Your task to perform on an android device: Open calendar and show me the fourth week of next month Image 0: 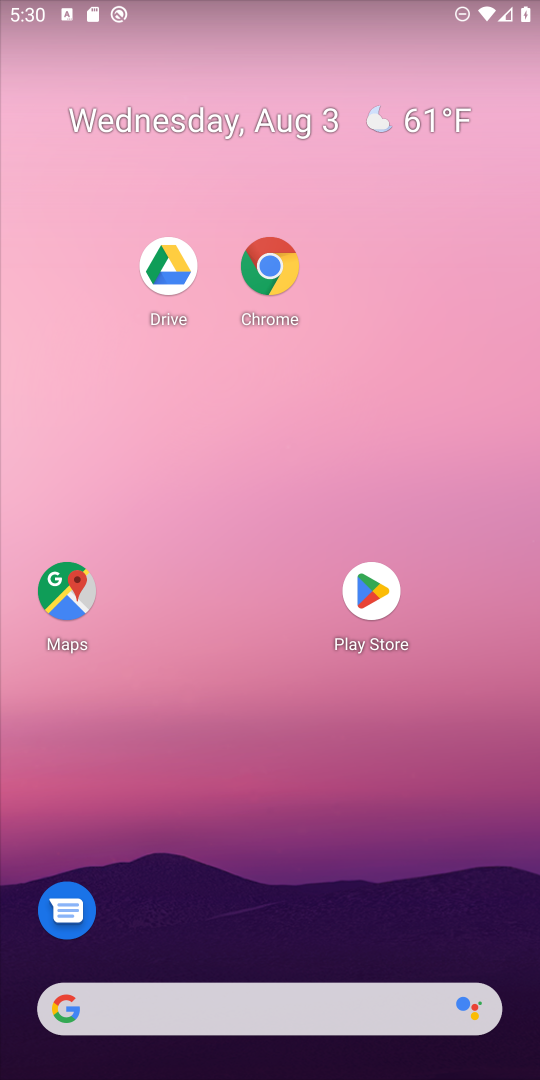
Step 0: drag from (321, 1022) to (430, 9)
Your task to perform on an android device: Open calendar and show me the fourth week of next month Image 1: 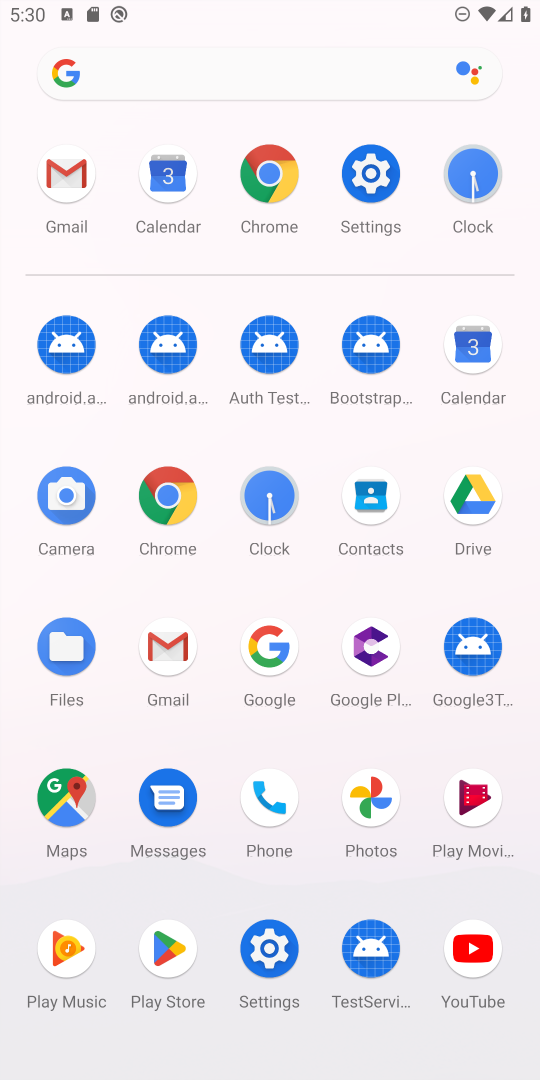
Step 1: click (481, 333)
Your task to perform on an android device: Open calendar and show me the fourth week of next month Image 2: 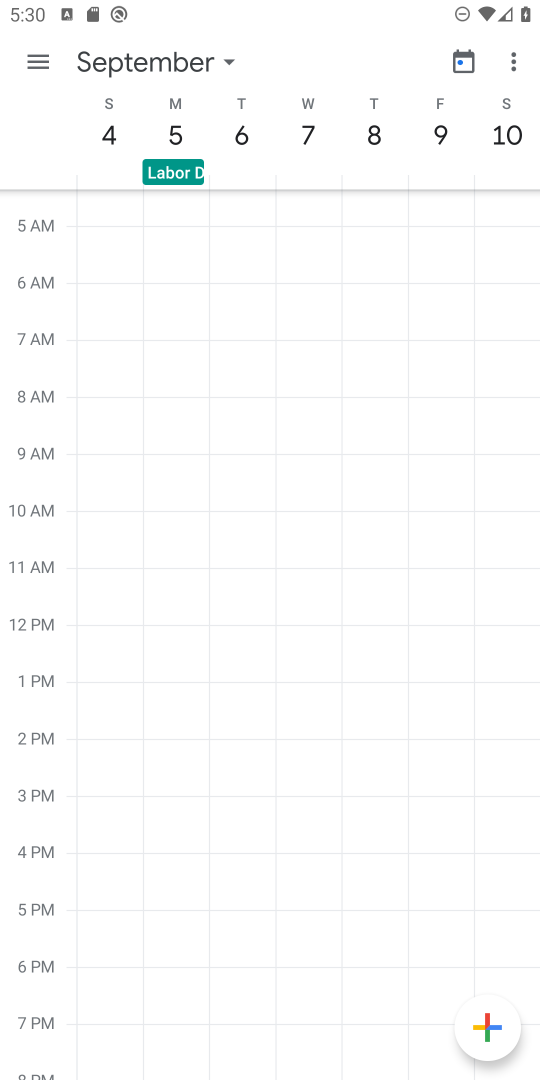
Step 2: click (228, 57)
Your task to perform on an android device: Open calendar and show me the fourth week of next month Image 3: 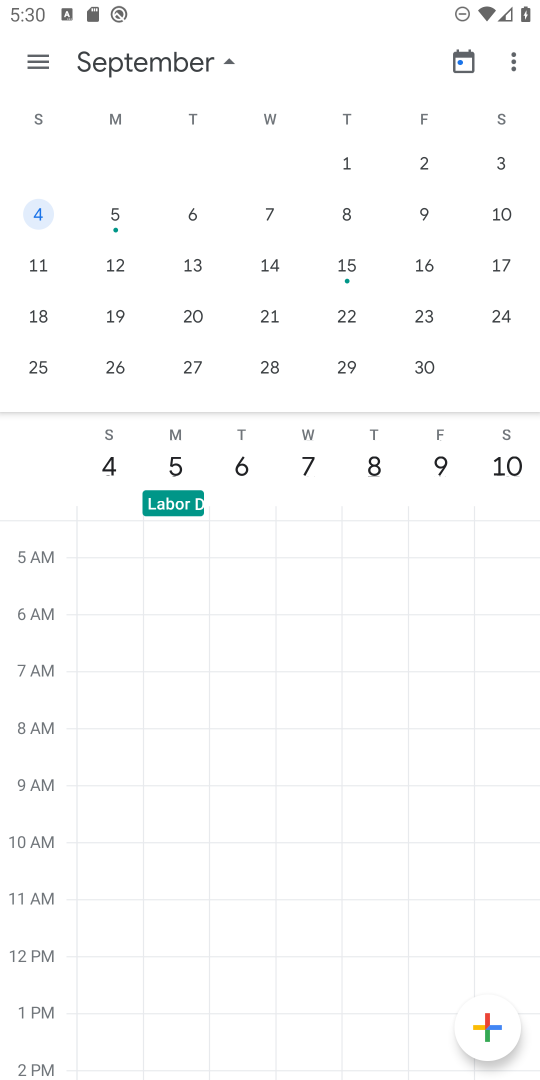
Step 3: click (193, 366)
Your task to perform on an android device: Open calendar and show me the fourth week of next month Image 4: 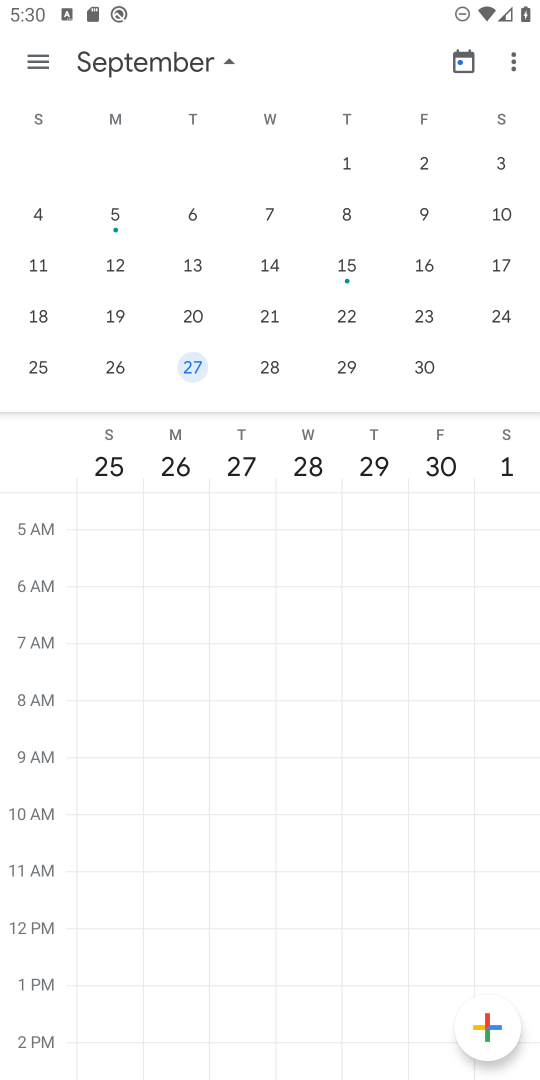
Step 4: task complete